Your task to perform on an android device: Go to Wikipedia Image 0: 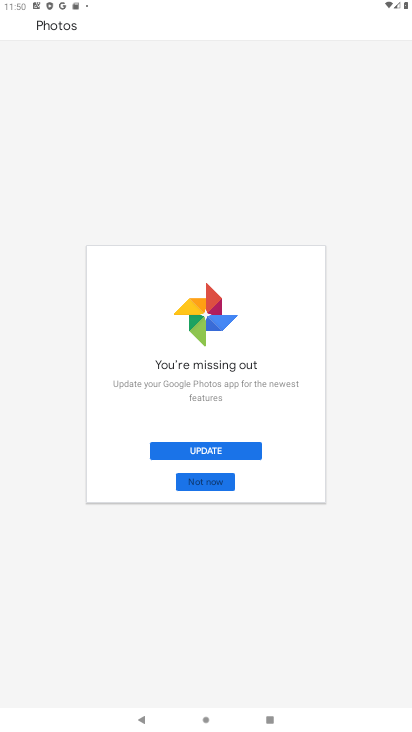
Step 0: press home button
Your task to perform on an android device: Go to Wikipedia Image 1: 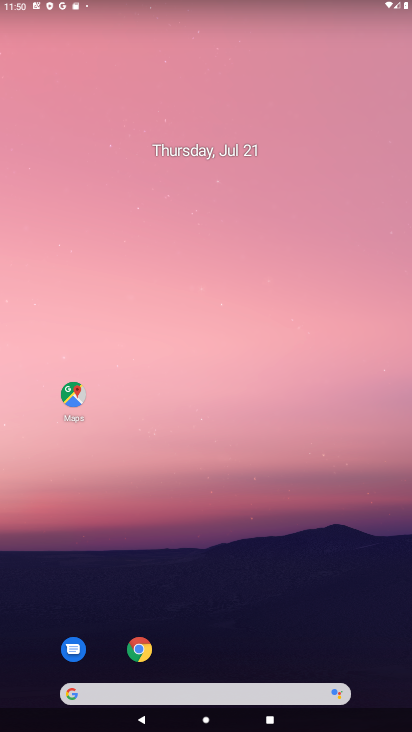
Step 1: drag from (240, 725) to (196, 245)
Your task to perform on an android device: Go to Wikipedia Image 2: 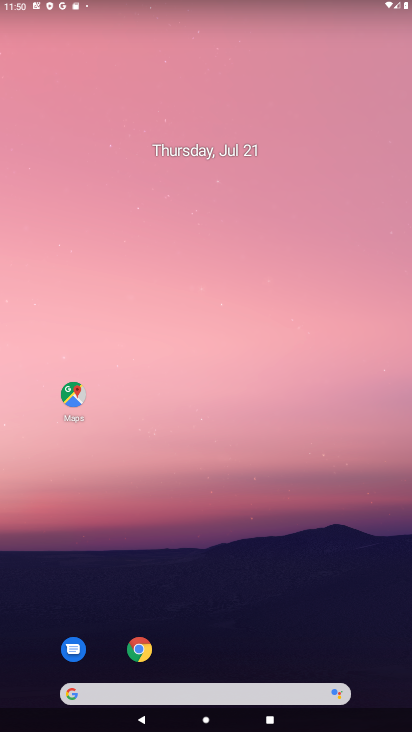
Step 2: click (142, 652)
Your task to perform on an android device: Go to Wikipedia Image 3: 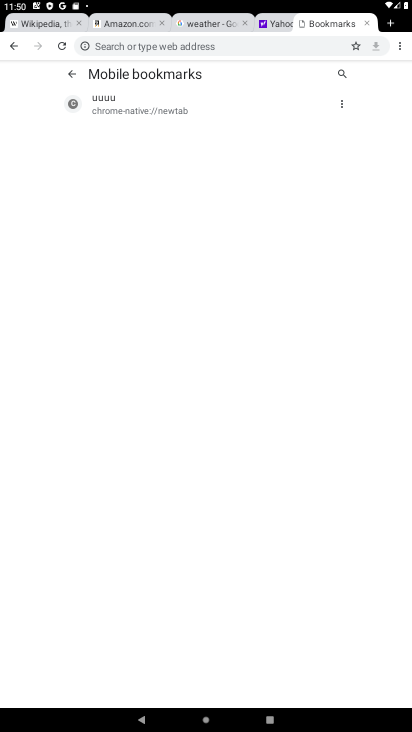
Step 3: click (399, 46)
Your task to perform on an android device: Go to Wikipedia Image 4: 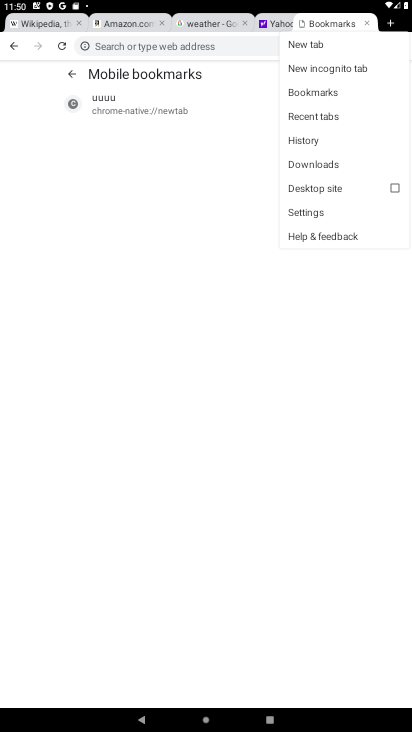
Step 4: click (309, 38)
Your task to perform on an android device: Go to Wikipedia Image 5: 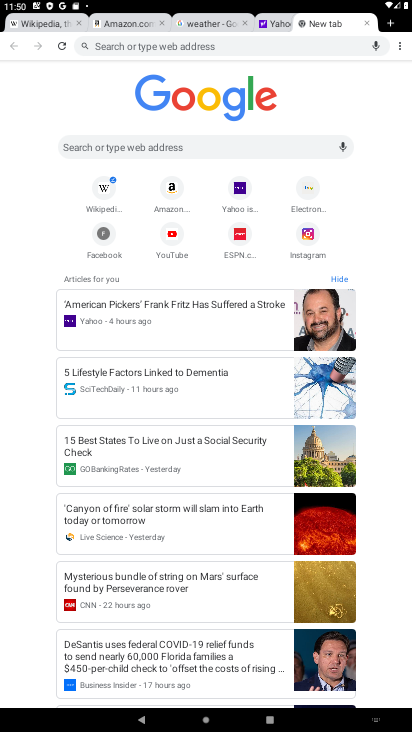
Step 5: click (100, 187)
Your task to perform on an android device: Go to Wikipedia Image 6: 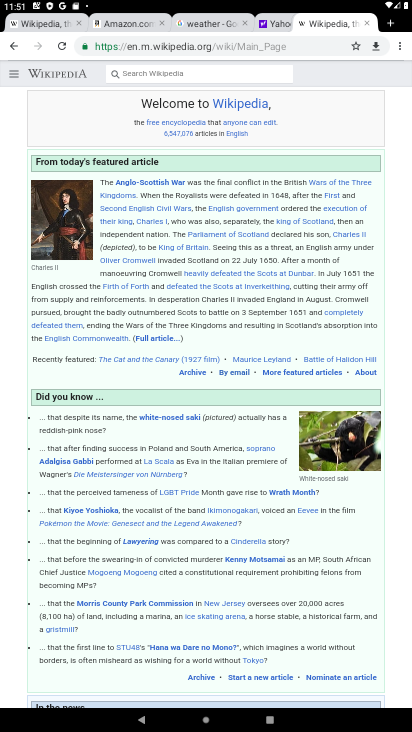
Step 6: task complete